Your task to perform on an android device: Open Chrome and go to the settings page Image 0: 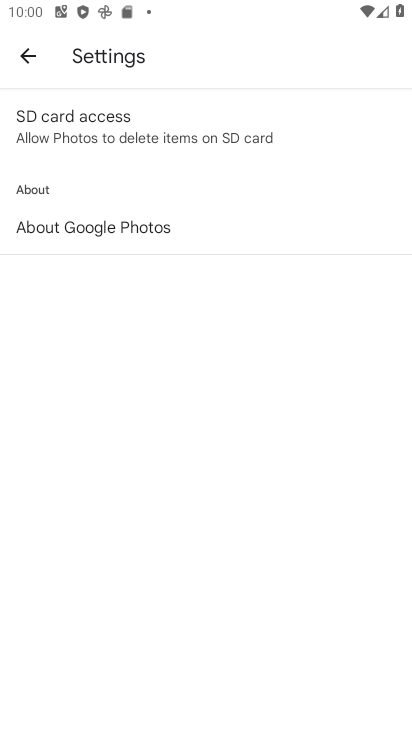
Step 0: press home button
Your task to perform on an android device: Open Chrome and go to the settings page Image 1: 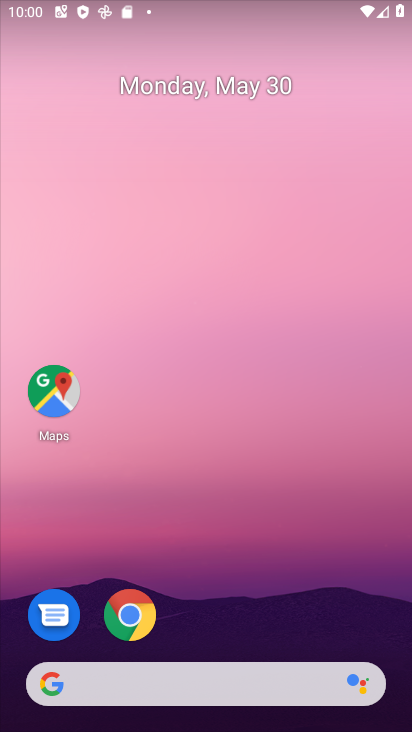
Step 1: click (140, 614)
Your task to perform on an android device: Open Chrome and go to the settings page Image 2: 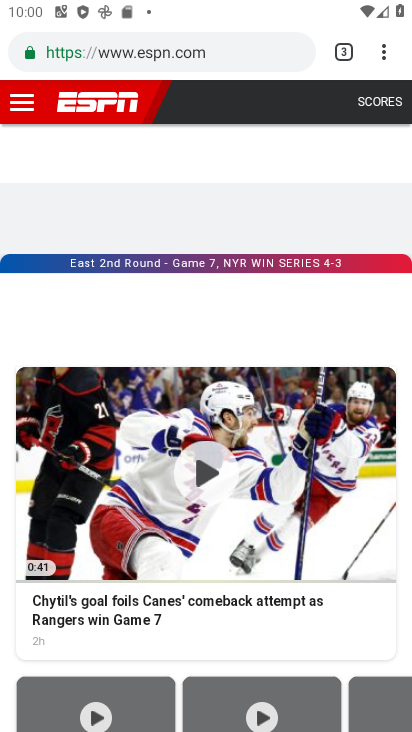
Step 2: click (388, 57)
Your task to perform on an android device: Open Chrome and go to the settings page Image 3: 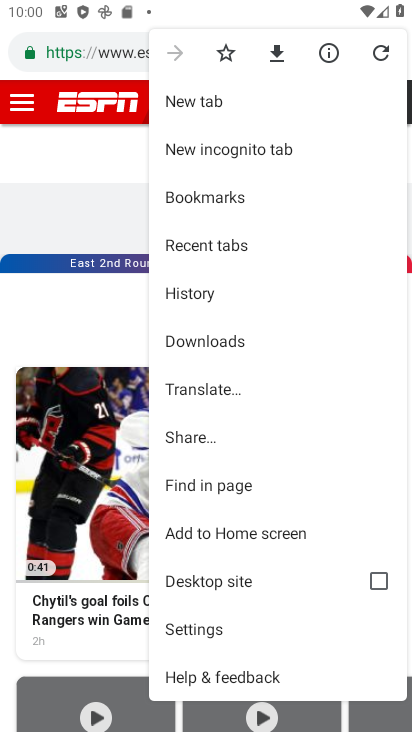
Step 3: click (221, 634)
Your task to perform on an android device: Open Chrome and go to the settings page Image 4: 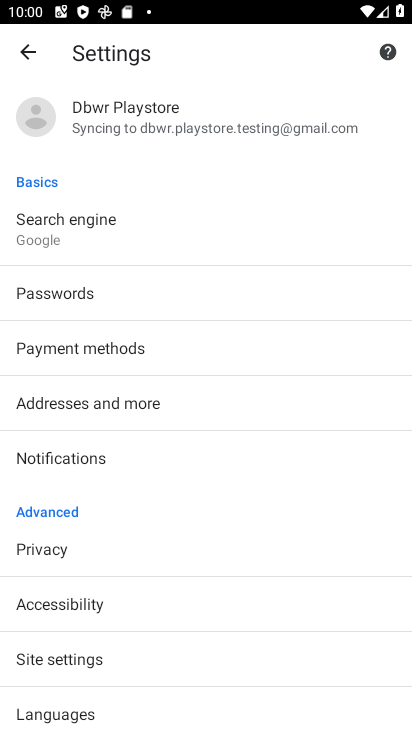
Step 4: task complete